Your task to perform on an android device: open a new tab in the chrome app Image 0: 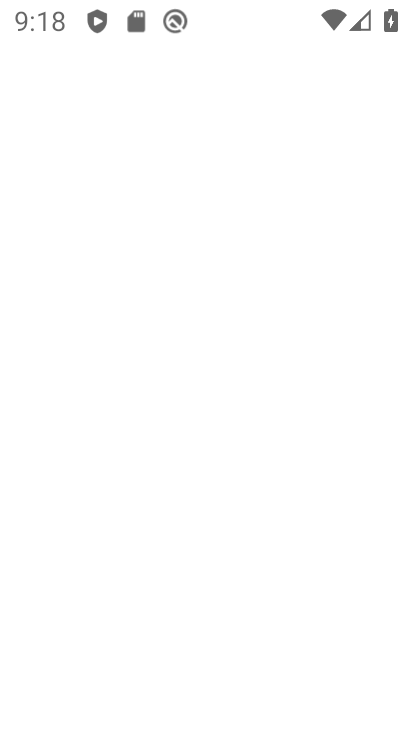
Step 0: press home button
Your task to perform on an android device: open a new tab in the chrome app Image 1: 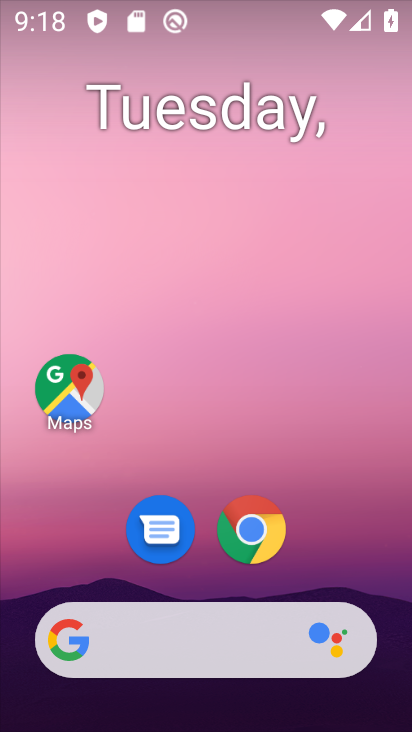
Step 1: click (257, 530)
Your task to perform on an android device: open a new tab in the chrome app Image 2: 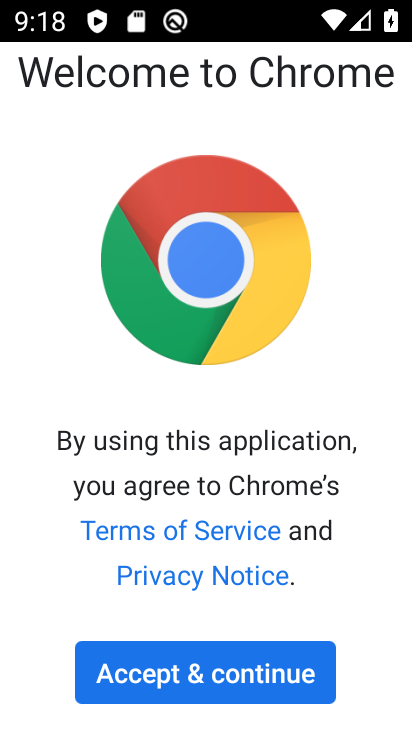
Step 2: click (236, 668)
Your task to perform on an android device: open a new tab in the chrome app Image 3: 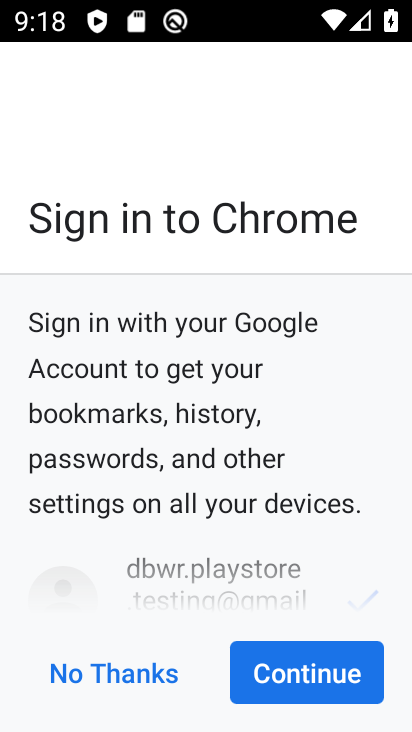
Step 3: click (254, 678)
Your task to perform on an android device: open a new tab in the chrome app Image 4: 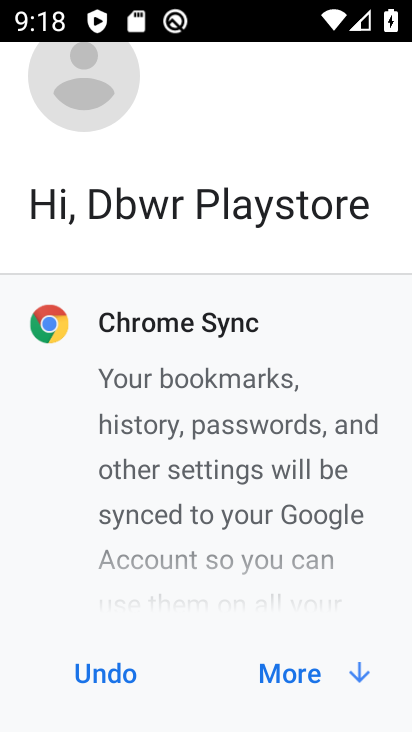
Step 4: click (291, 681)
Your task to perform on an android device: open a new tab in the chrome app Image 5: 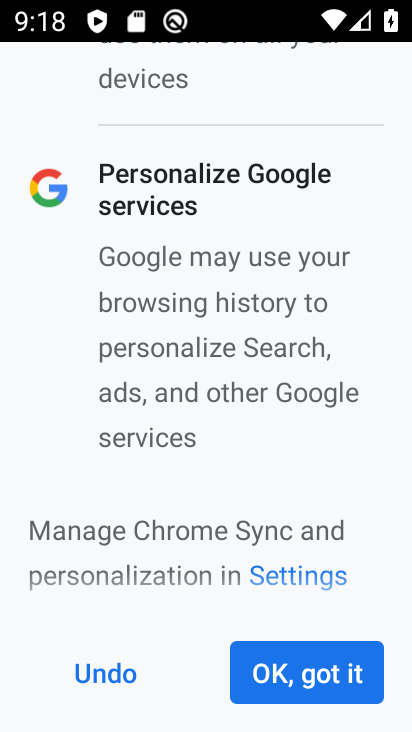
Step 5: click (289, 677)
Your task to perform on an android device: open a new tab in the chrome app Image 6: 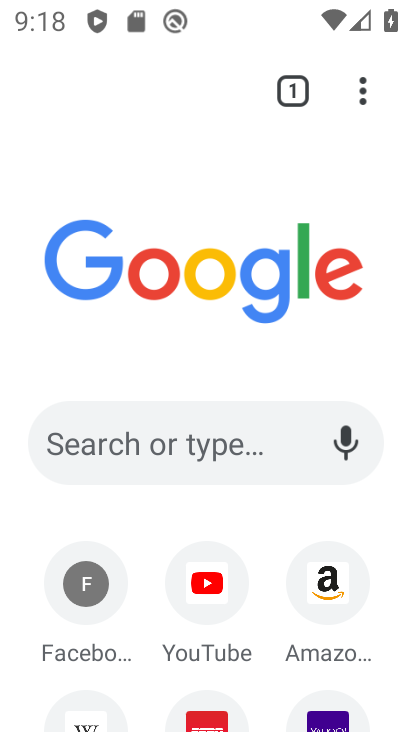
Step 6: click (362, 100)
Your task to perform on an android device: open a new tab in the chrome app Image 7: 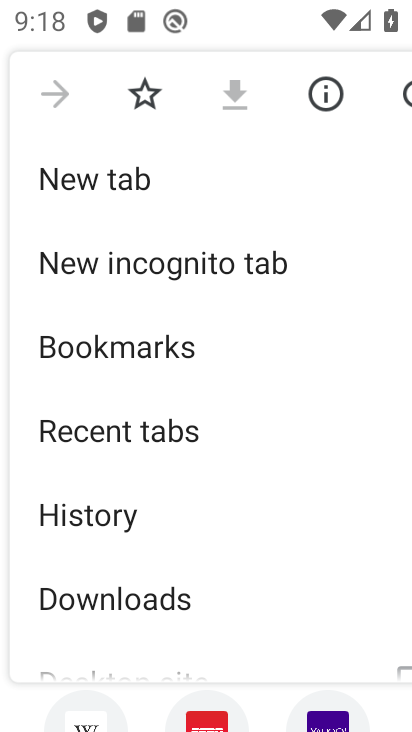
Step 7: click (110, 171)
Your task to perform on an android device: open a new tab in the chrome app Image 8: 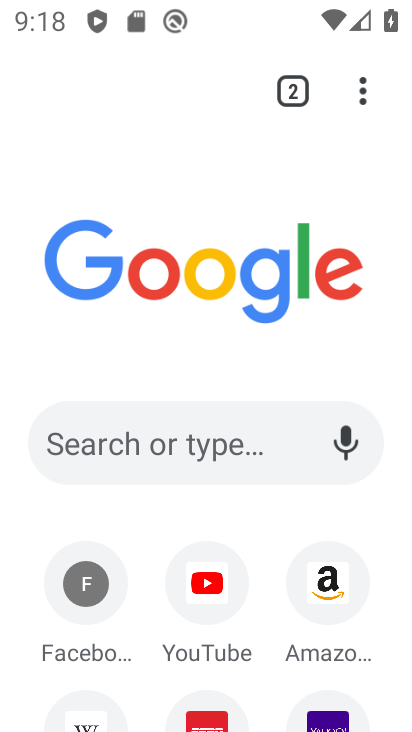
Step 8: task complete